Your task to perform on an android device: turn on sleep mode Image 0: 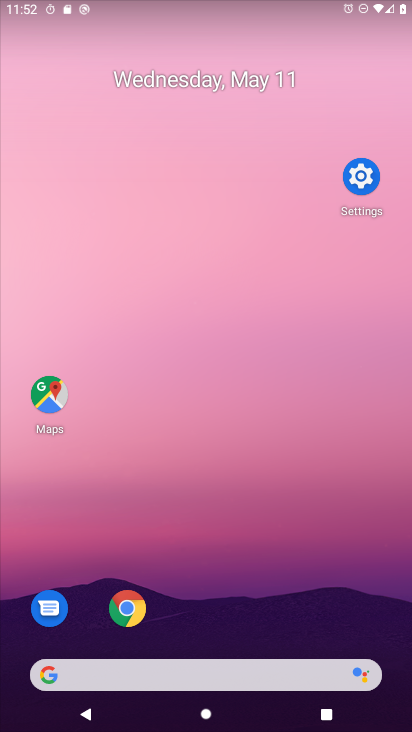
Step 0: drag from (299, 652) to (143, 176)
Your task to perform on an android device: turn on sleep mode Image 1: 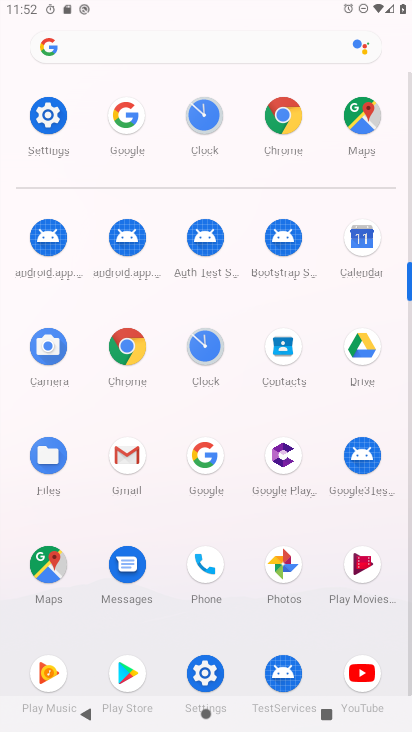
Step 1: click (213, 667)
Your task to perform on an android device: turn on sleep mode Image 2: 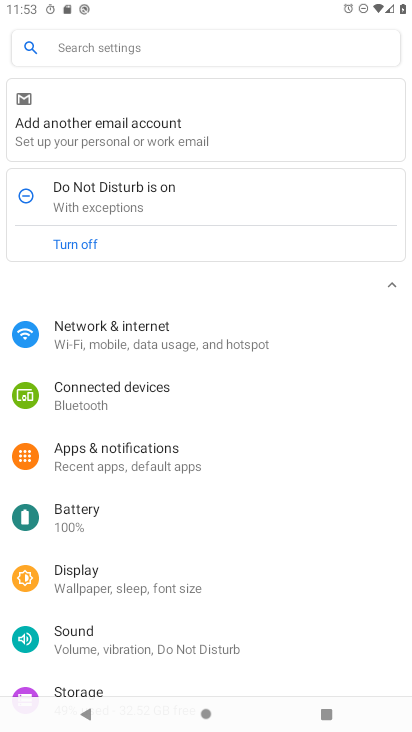
Step 2: click (108, 579)
Your task to perform on an android device: turn on sleep mode Image 3: 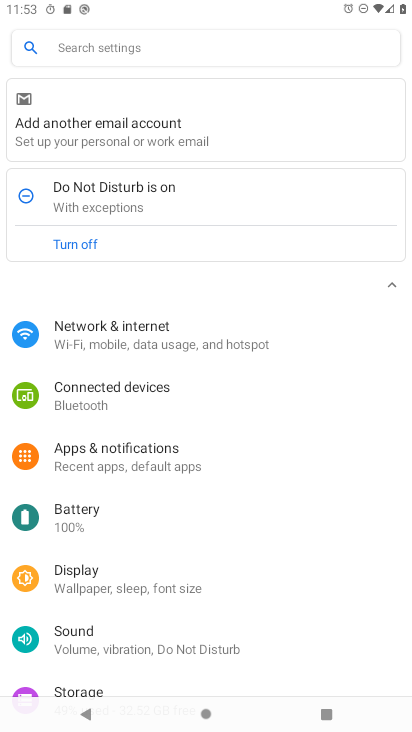
Step 3: click (104, 579)
Your task to perform on an android device: turn on sleep mode Image 4: 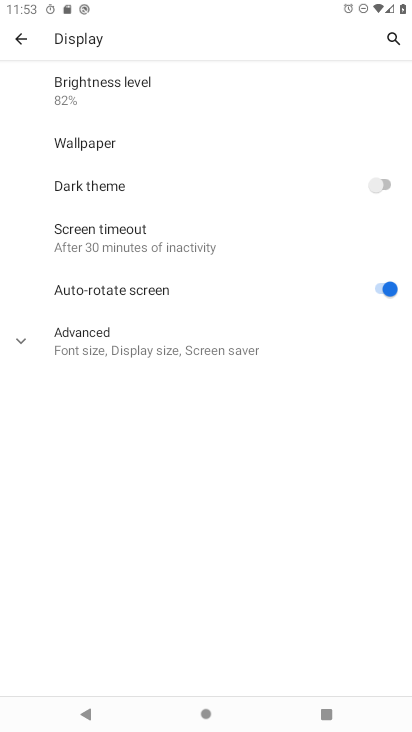
Step 4: click (110, 234)
Your task to perform on an android device: turn on sleep mode Image 5: 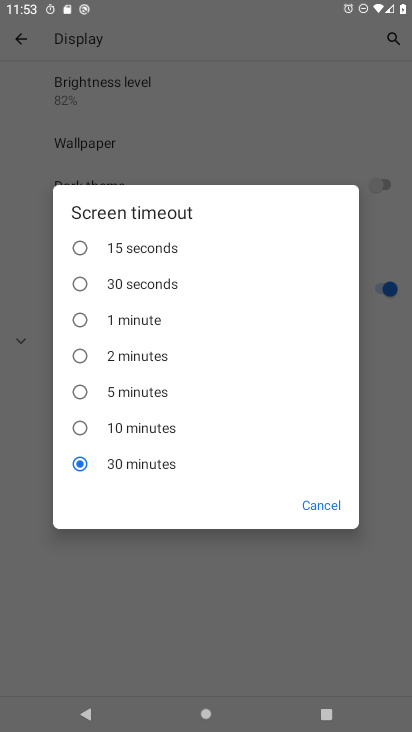
Step 5: click (308, 505)
Your task to perform on an android device: turn on sleep mode Image 6: 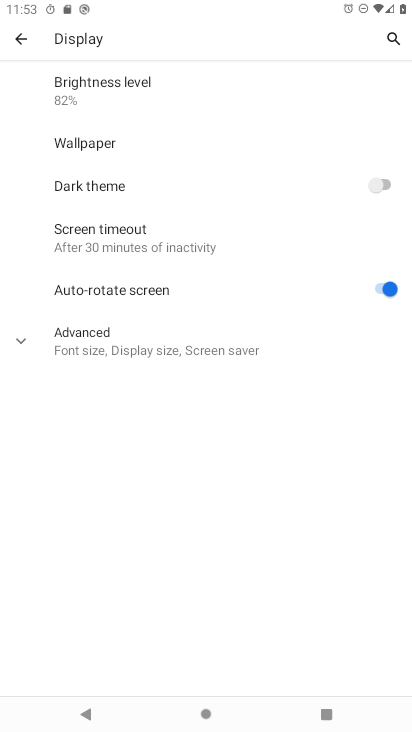
Step 6: task complete